Your task to perform on an android device: turn off sleep mode Image 0: 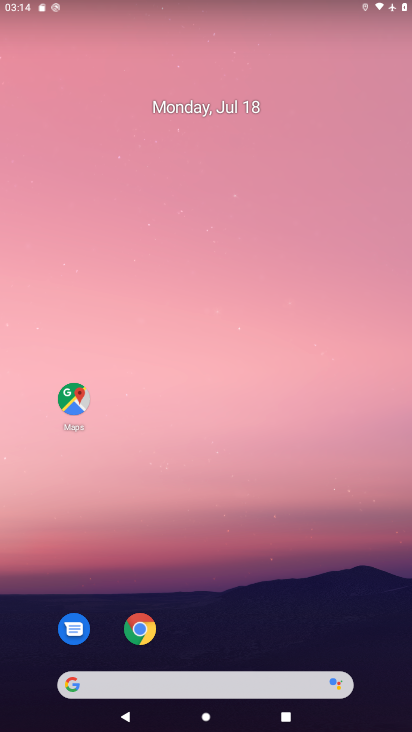
Step 0: drag from (361, 611) to (372, 149)
Your task to perform on an android device: turn off sleep mode Image 1: 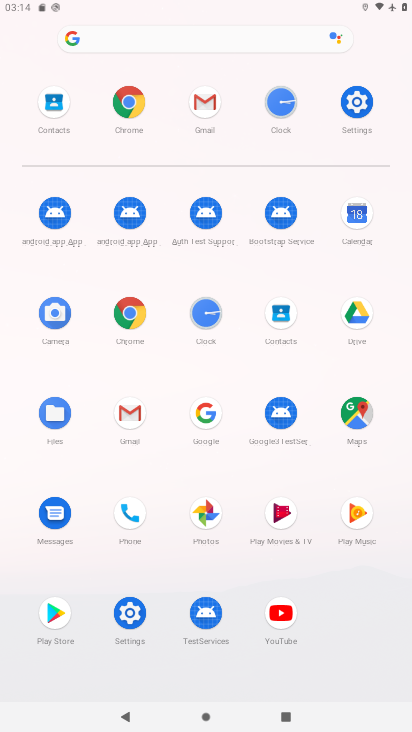
Step 1: click (349, 111)
Your task to perform on an android device: turn off sleep mode Image 2: 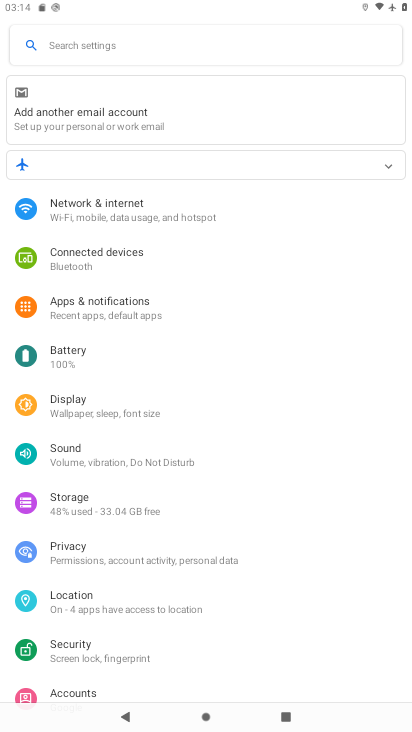
Step 2: drag from (310, 450) to (314, 387)
Your task to perform on an android device: turn off sleep mode Image 3: 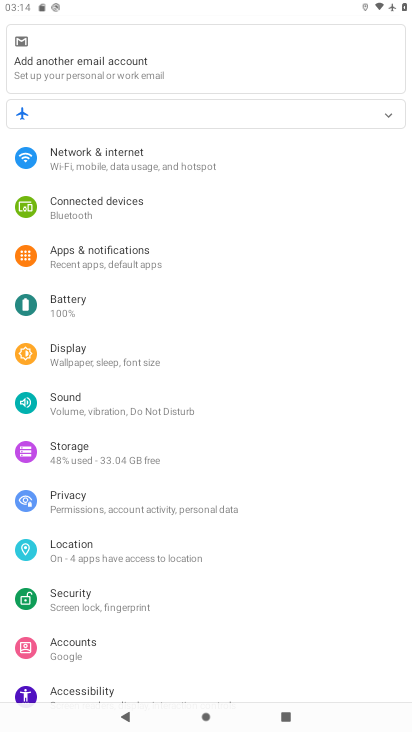
Step 3: drag from (309, 488) to (317, 387)
Your task to perform on an android device: turn off sleep mode Image 4: 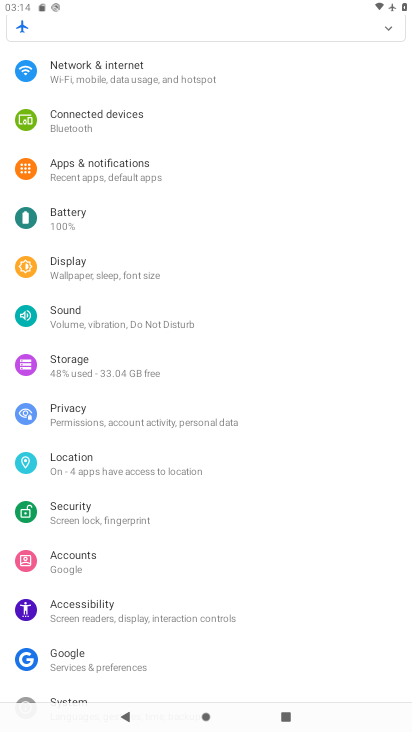
Step 4: drag from (316, 541) to (331, 438)
Your task to perform on an android device: turn off sleep mode Image 5: 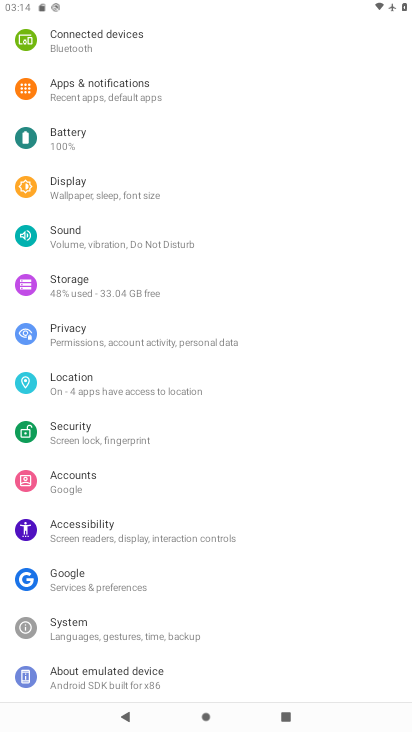
Step 5: drag from (320, 506) to (333, 425)
Your task to perform on an android device: turn off sleep mode Image 6: 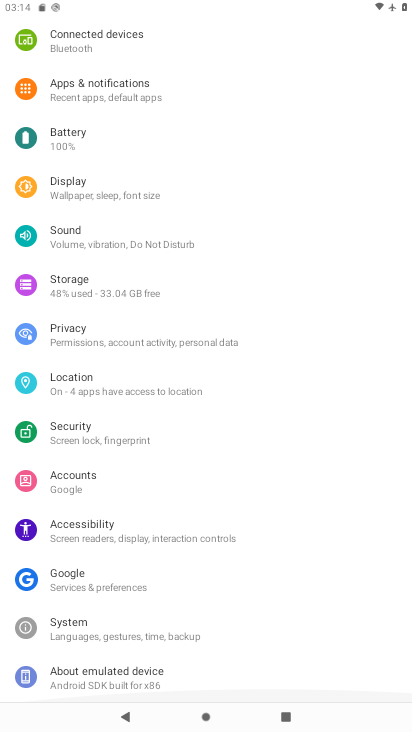
Step 6: drag from (334, 338) to (335, 428)
Your task to perform on an android device: turn off sleep mode Image 7: 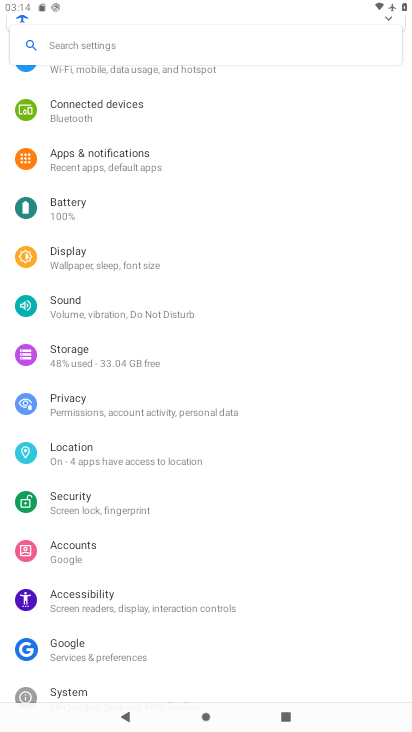
Step 7: drag from (339, 311) to (339, 392)
Your task to perform on an android device: turn off sleep mode Image 8: 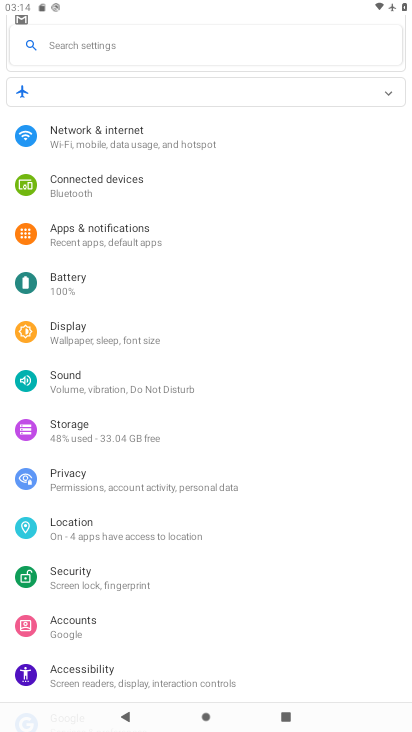
Step 8: drag from (317, 247) to (316, 361)
Your task to perform on an android device: turn off sleep mode Image 9: 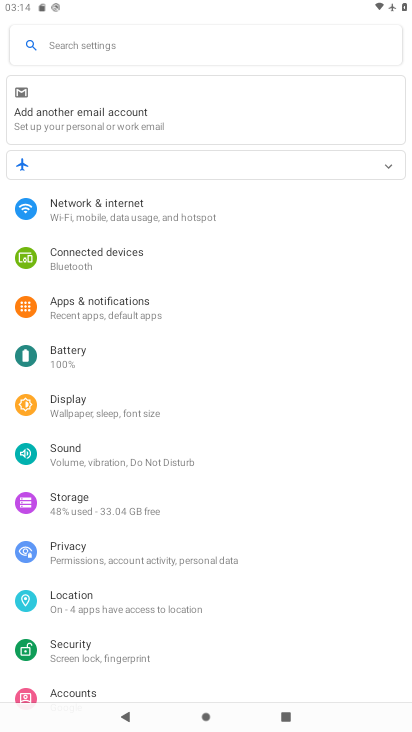
Step 9: drag from (280, 310) to (266, 455)
Your task to perform on an android device: turn off sleep mode Image 10: 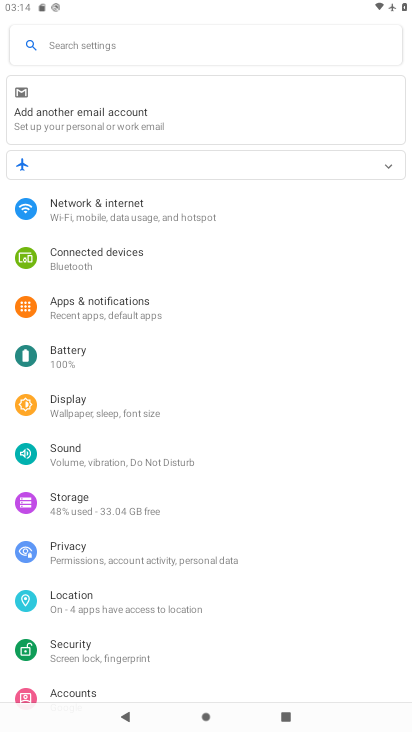
Step 10: click (170, 412)
Your task to perform on an android device: turn off sleep mode Image 11: 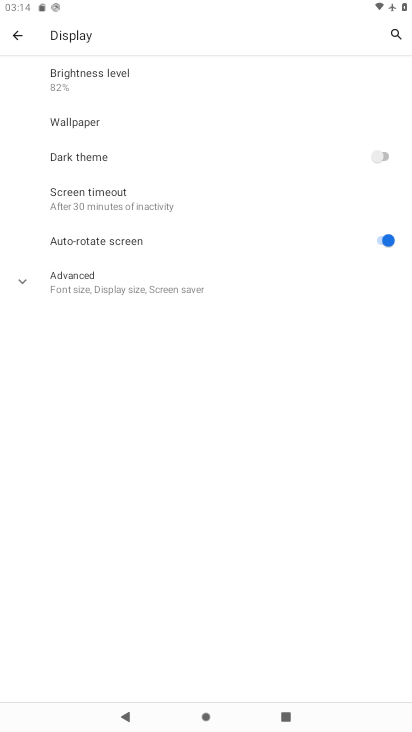
Step 11: click (179, 290)
Your task to perform on an android device: turn off sleep mode Image 12: 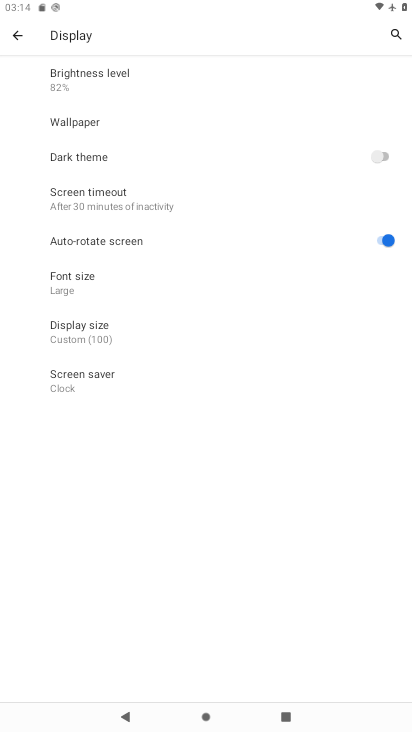
Step 12: task complete